Your task to perform on an android device: change the clock display to show seconds Image 0: 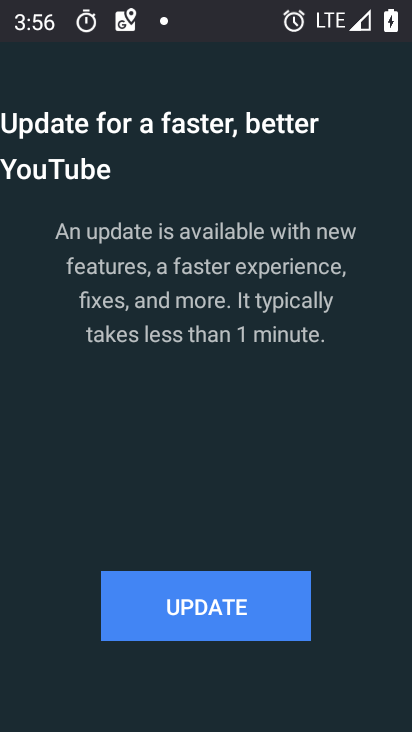
Step 0: press back button
Your task to perform on an android device: change the clock display to show seconds Image 1: 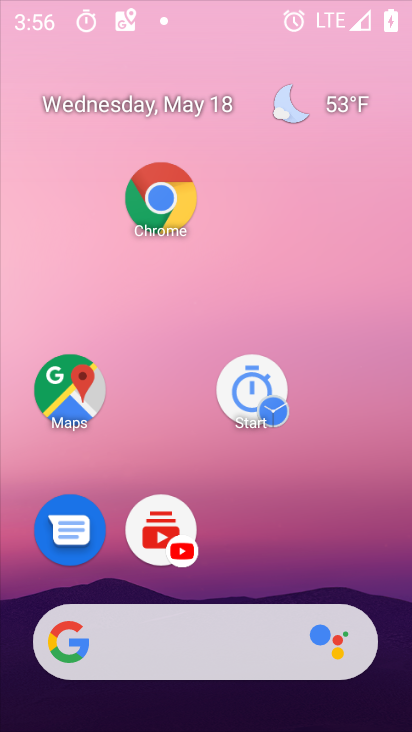
Step 1: drag from (312, 638) to (239, 120)
Your task to perform on an android device: change the clock display to show seconds Image 2: 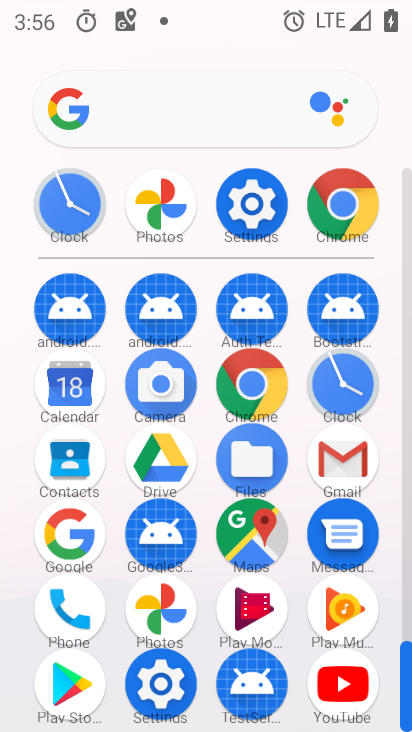
Step 2: click (345, 387)
Your task to perform on an android device: change the clock display to show seconds Image 3: 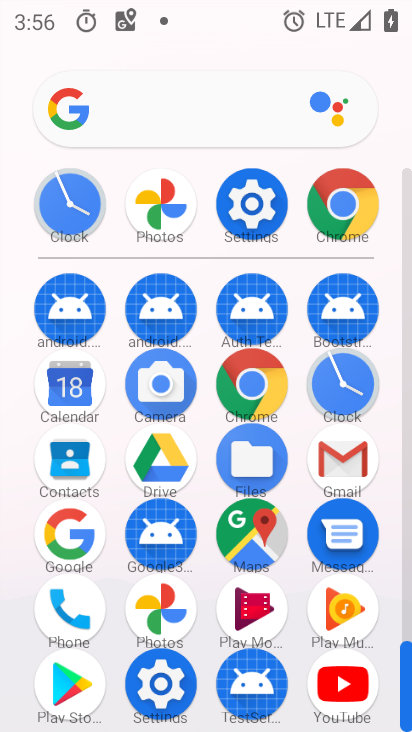
Step 3: click (345, 387)
Your task to perform on an android device: change the clock display to show seconds Image 4: 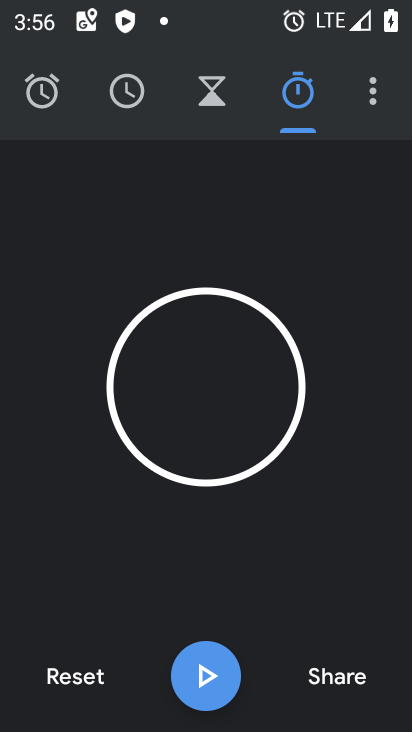
Step 4: click (374, 91)
Your task to perform on an android device: change the clock display to show seconds Image 5: 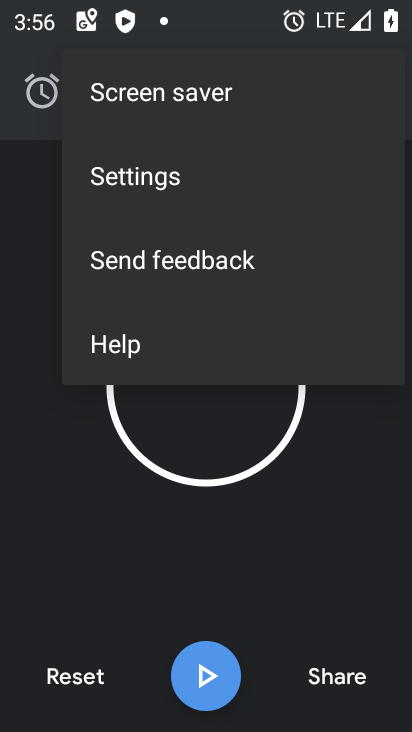
Step 5: click (161, 181)
Your task to perform on an android device: change the clock display to show seconds Image 6: 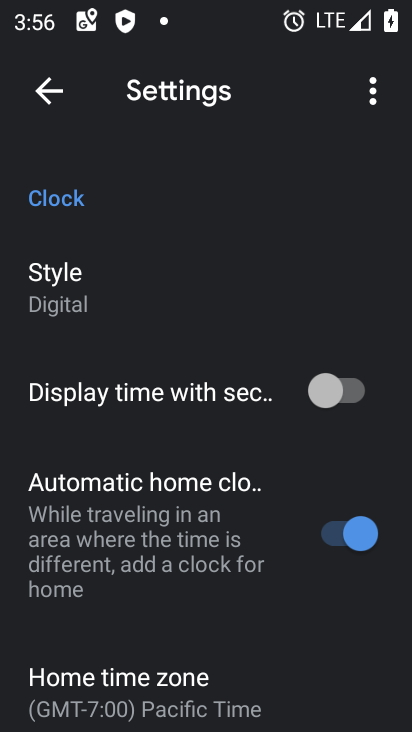
Step 6: click (203, 267)
Your task to perform on an android device: change the clock display to show seconds Image 7: 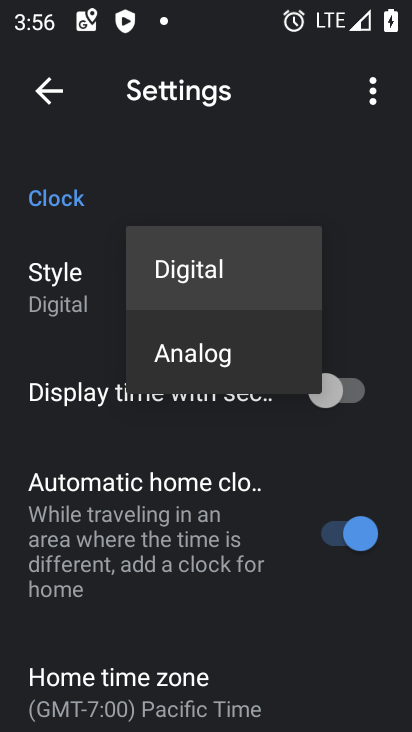
Step 7: click (327, 275)
Your task to perform on an android device: change the clock display to show seconds Image 8: 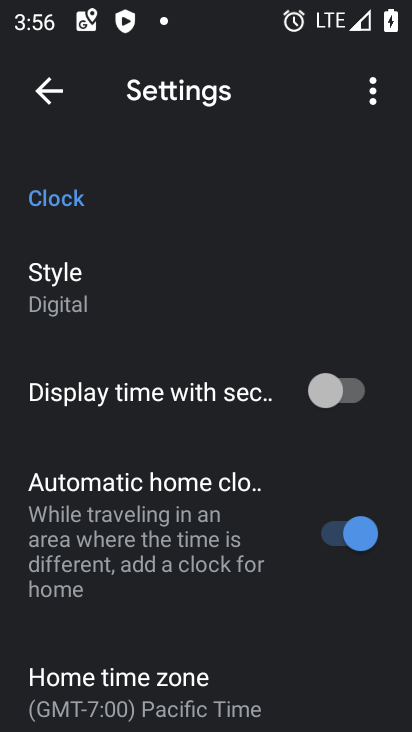
Step 8: click (332, 303)
Your task to perform on an android device: change the clock display to show seconds Image 9: 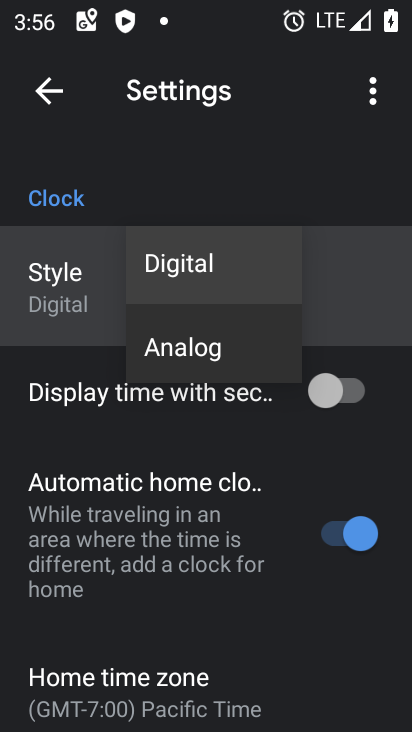
Step 9: click (316, 390)
Your task to perform on an android device: change the clock display to show seconds Image 10: 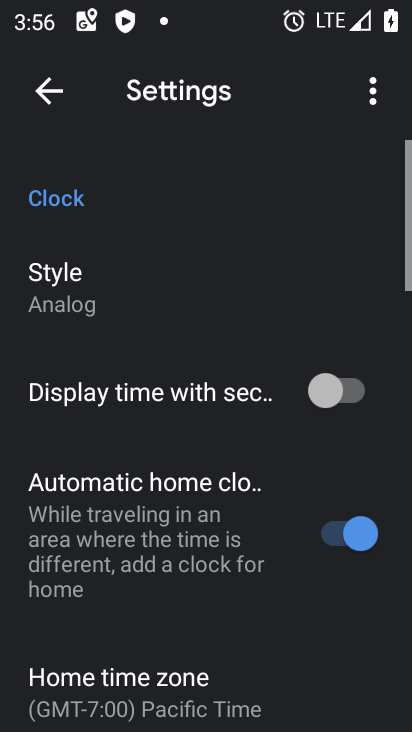
Step 10: click (328, 395)
Your task to perform on an android device: change the clock display to show seconds Image 11: 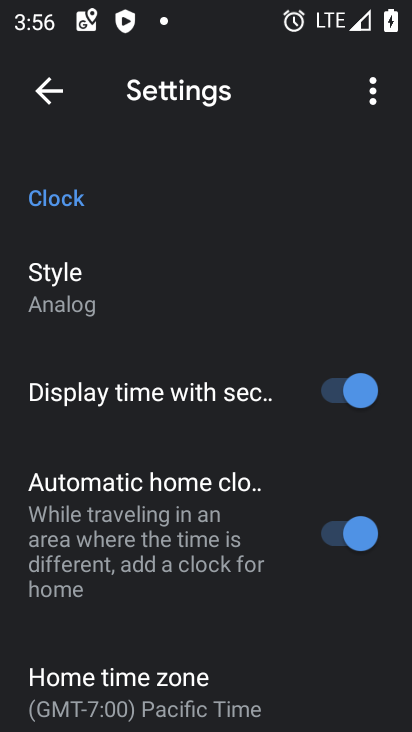
Step 11: task complete